Your task to perform on an android device: Show me recent news Image 0: 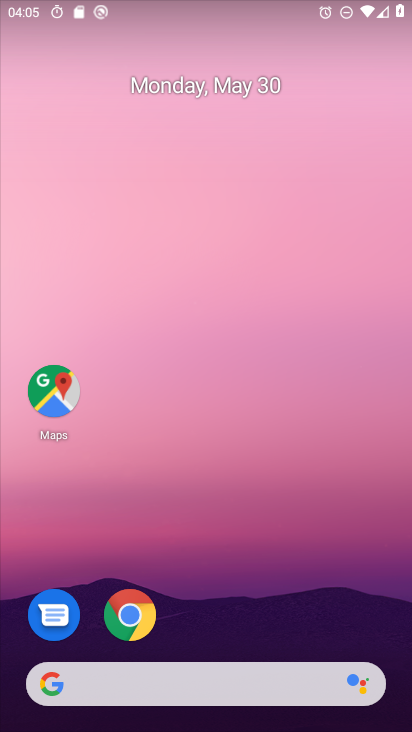
Step 0: drag from (285, 613) to (140, 163)
Your task to perform on an android device: Show me recent news Image 1: 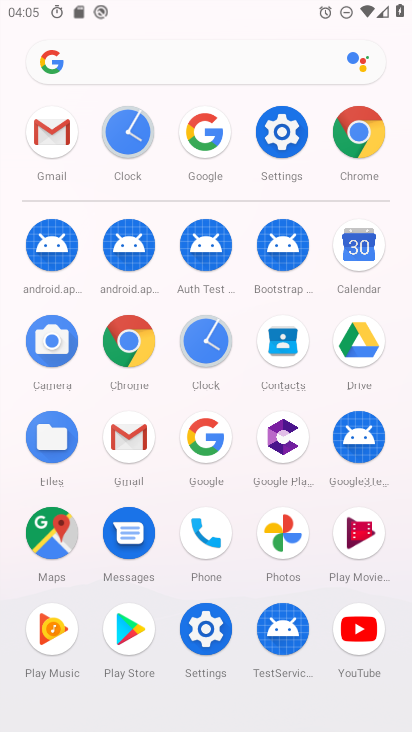
Step 1: click (200, 130)
Your task to perform on an android device: Show me recent news Image 2: 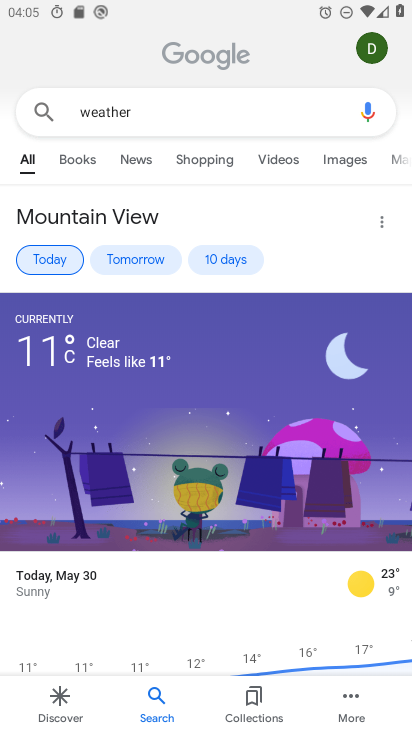
Step 2: click (296, 116)
Your task to perform on an android device: Show me recent news Image 3: 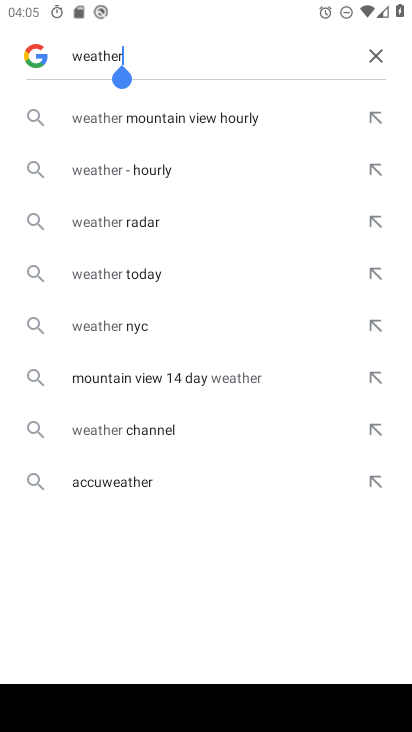
Step 3: click (378, 63)
Your task to perform on an android device: Show me recent news Image 4: 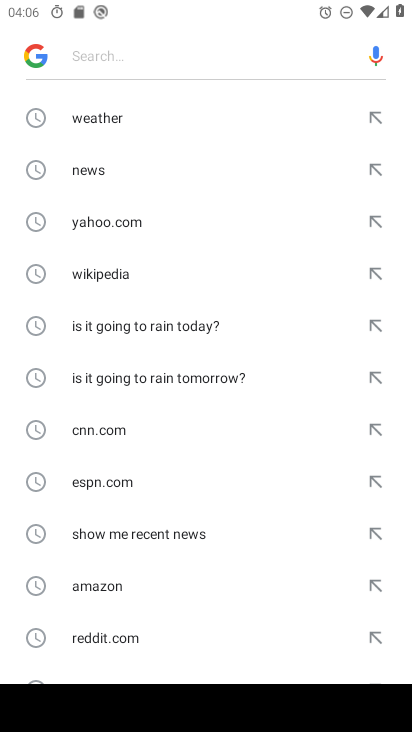
Step 4: type "recent news"
Your task to perform on an android device: Show me recent news Image 5: 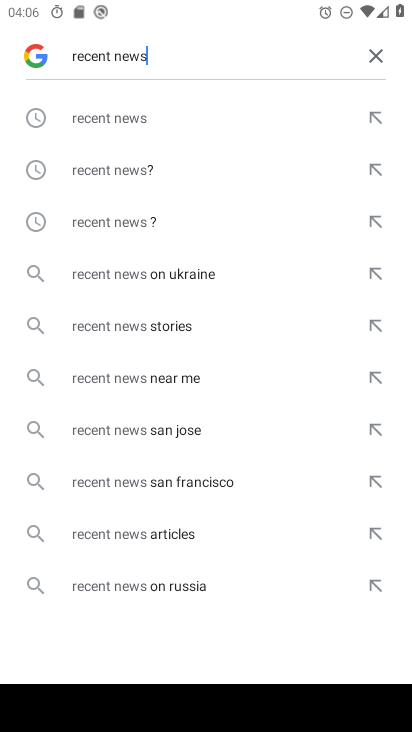
Step 5: click (103, 118)
Your task to perform on an android device: Show me recent news Image 6: 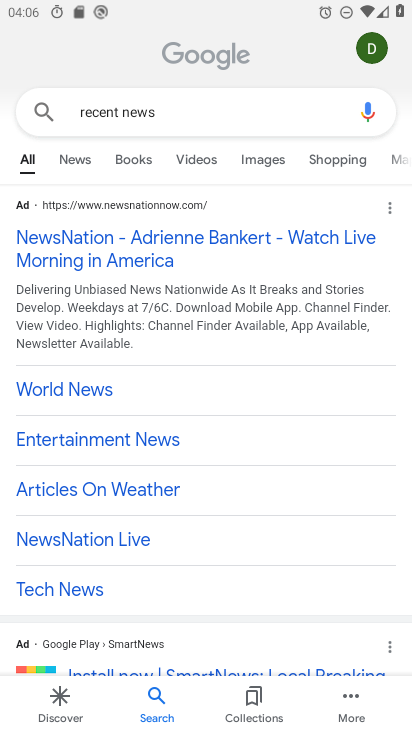
Step 6: drag from (237, 555) to (285, 327)
Your task to perform on an android device: Show me recent news Image 7: 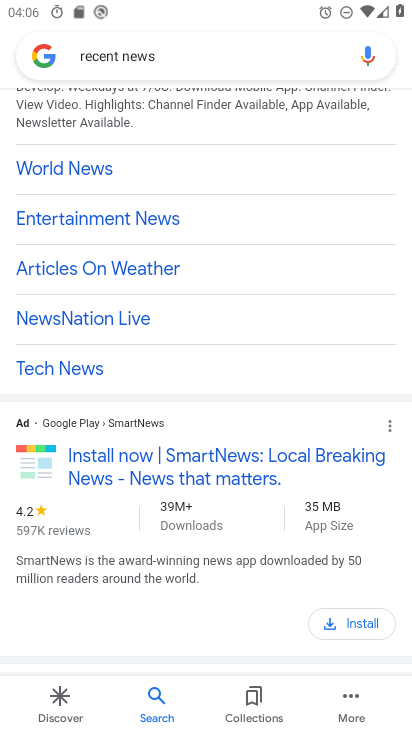
Step 7: drag from (234, 543) to (286, 335)
Your task to perform on an android device: Show me recent news Image 8: 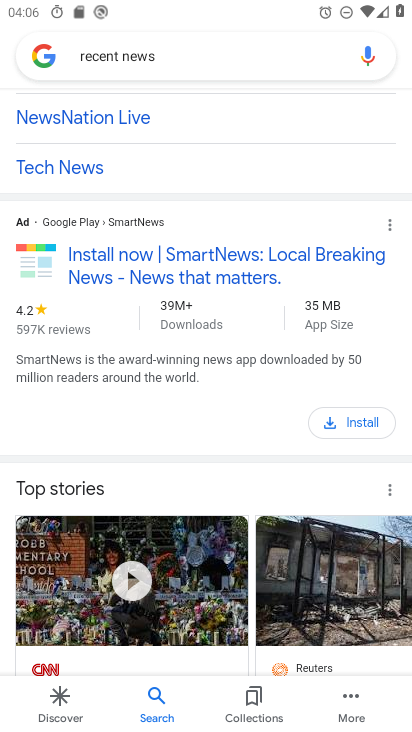
Step 8: drag from (199, 572) to (259, 388)
Your task to perform on an android device: Show me recent news Image 9: 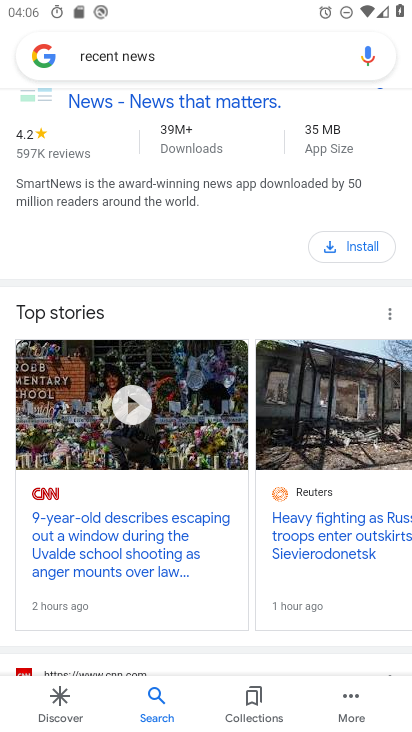
Step 9: click (104, 479)
Your task to perform on an android device: Show me recent news Image 10: 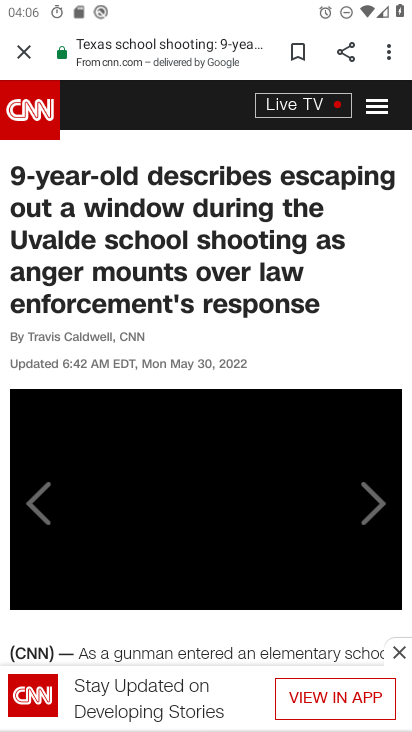
Step 10: task complete